Your task to perform on an android device: Open internet settings Image 0: 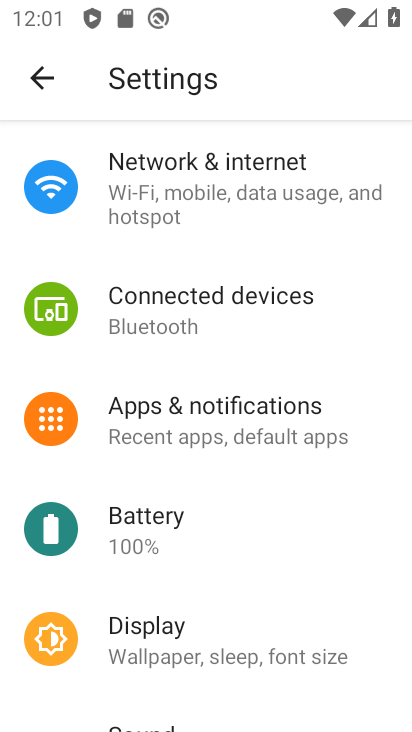
Step 0: click (77, 164)
Your task to perform on an android device: Open internet settings Image 1: 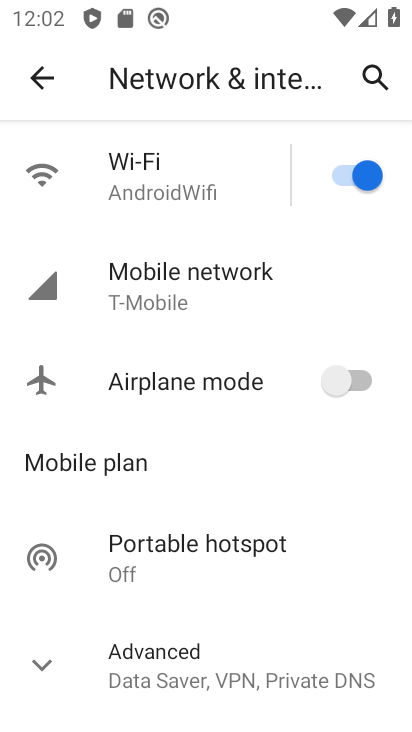
Step 1: click (219, 271)
Your task to perform on an android device: Open internet settings Image 2: 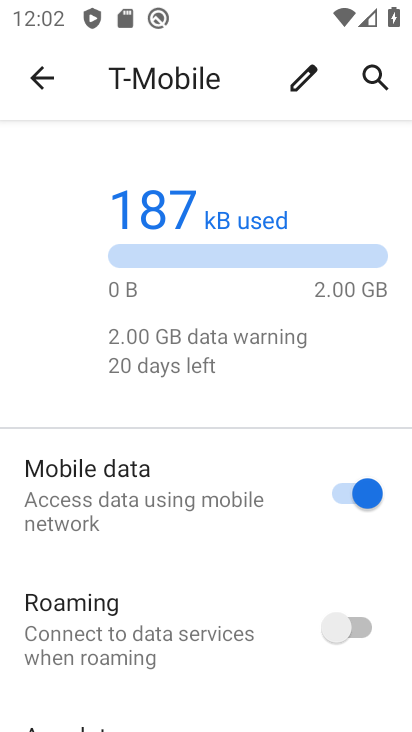
Step 2: task complete